Your task to perform on an android device: empty trash in google photos Image 0: 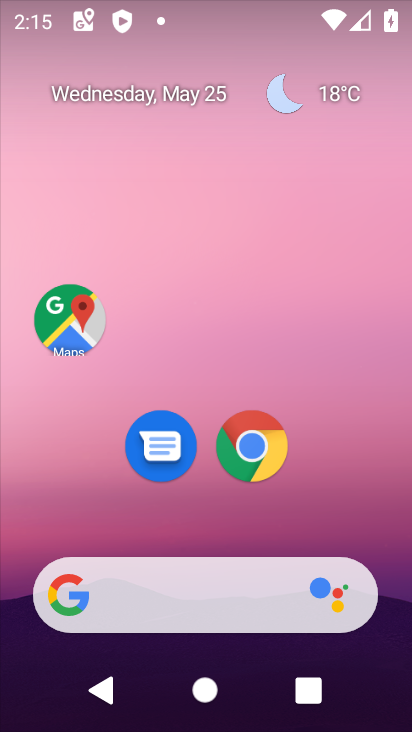
Step 0: drag from (198, 585) to (210, 131)
Your task to perform on an android device: empty trash in google photos Image 1: 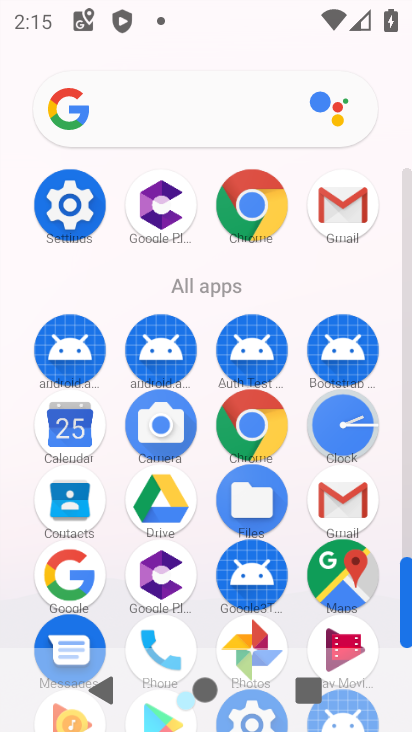
Step 1: click (248, 621)
Your task to perform on an android device: empty trash in google photos Image 2: 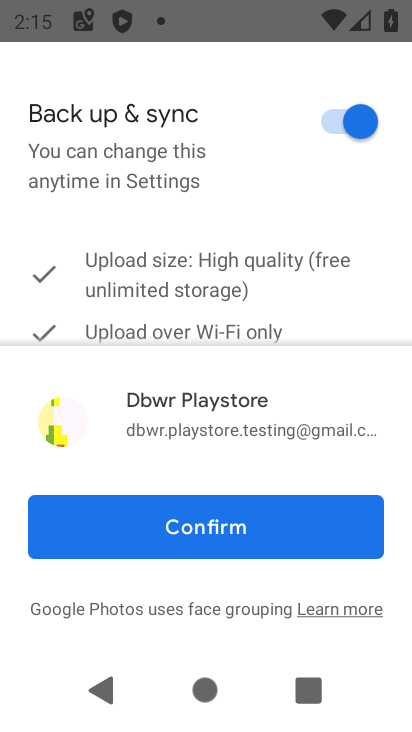
Step 2: click (247, 529)
Your task to perform on an android device: empty trash in google photos Image 3: 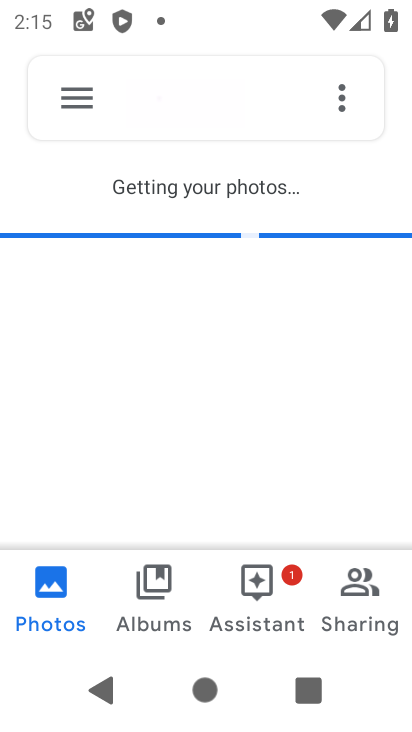
Step 3: click (63, 107)
Your task to perform on an android device: empty trash in google photos Image 4: 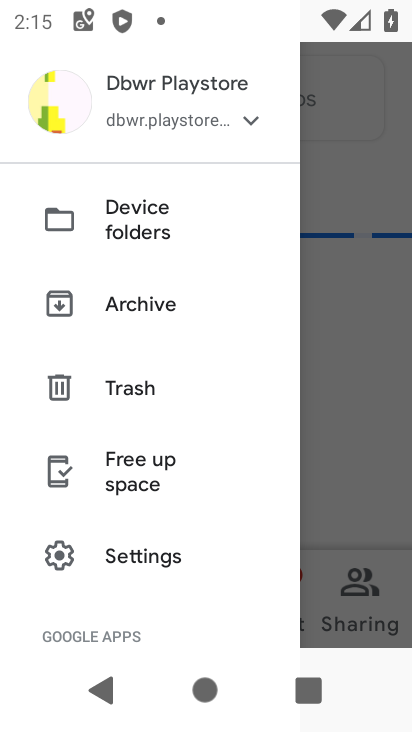
Step 4: click (109, 399)
Your task to perform on an android device: empty trash in google photos Image 5: 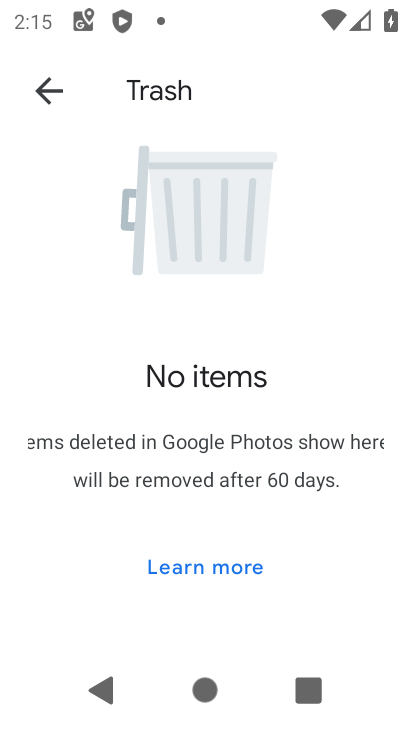
Step 5: task complete